Your task to perform on an android device: Go to battery settings Image 0: 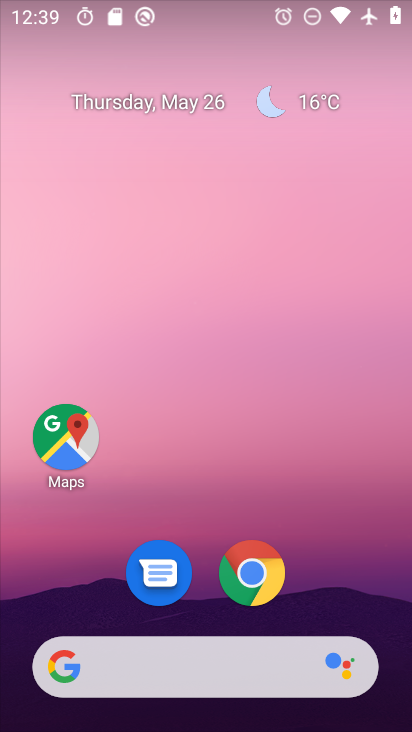
Step 0: drag from (329, 604) to (350, 4)
Your task to perform on an android device: Go to battery settings Image 1: 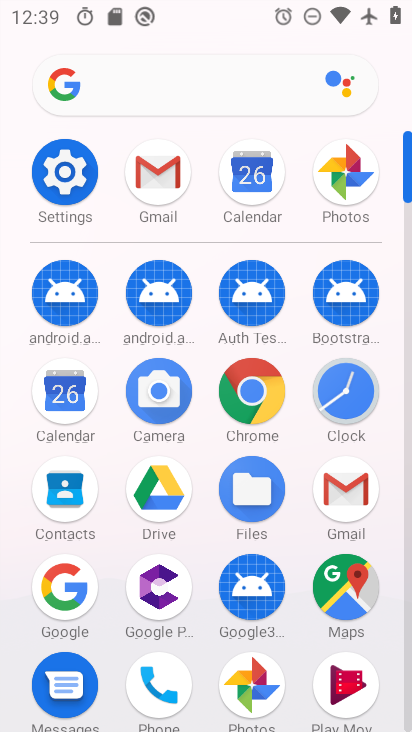
Step 1: click (60, 174)
Your task to perform on an android device: Go to battery settings Image 2: 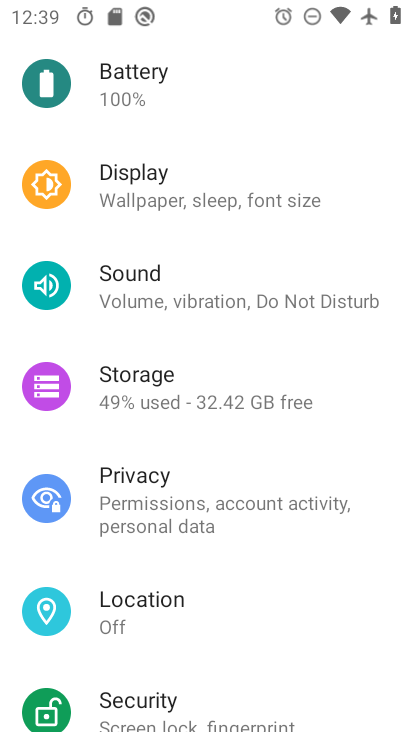
Step 2: click (124, 97)
Your task to perform on an android device: Go to battery settings Image 3: 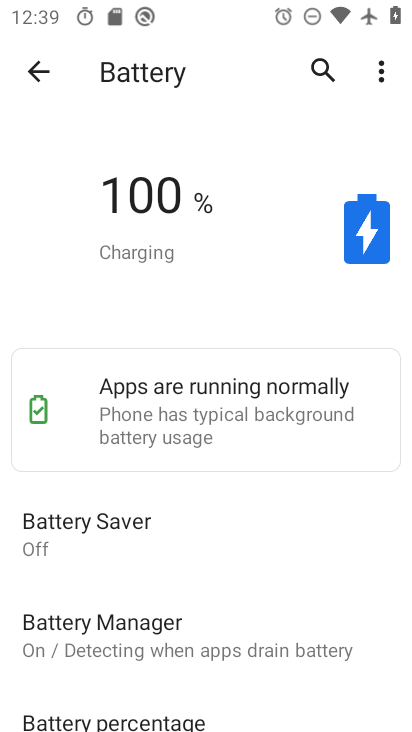
Step 3: task complete